Your task to perform on an android device: Open the phone app and click the voicemail tab. Image 0: 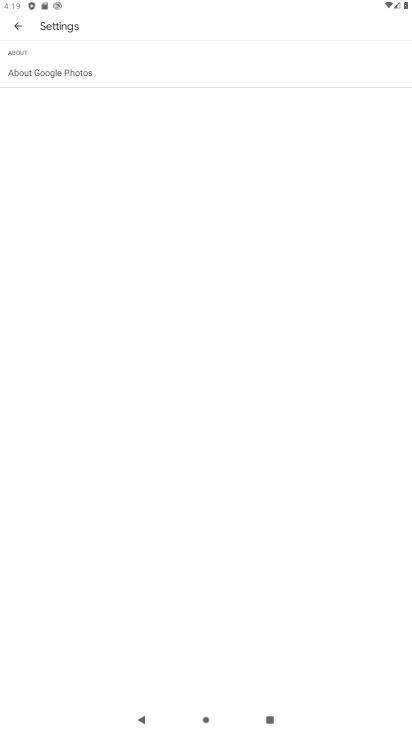
Step 0: press home button
Your task to perform on an android device: Open the phone app and click the voicemail tab. Image 1: 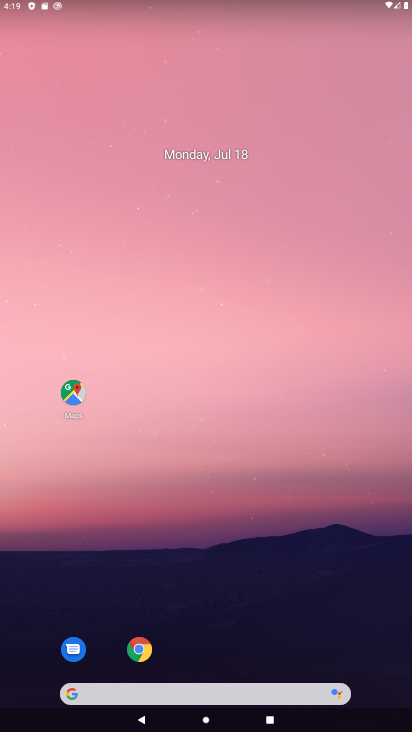
Step 1: drag from (191, 590) to (153, 38)
Your task to perform on an android device: Open the phone app and click the voicemail tab. Image 2: 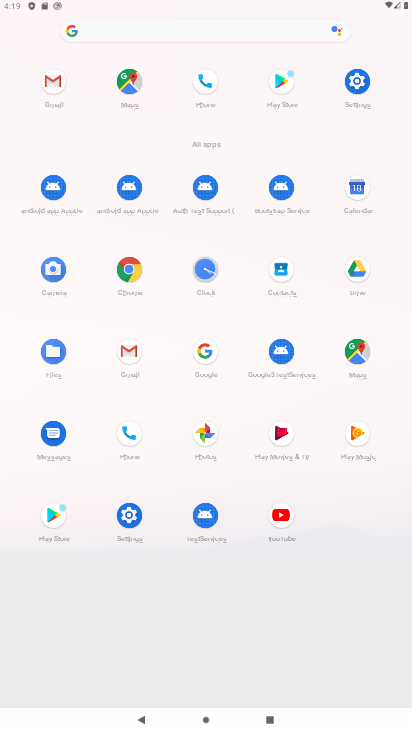
Step 2: click (124, 446)
Your task to perform on an android device: Open the phone app and click the voicemail tab. Image 3: 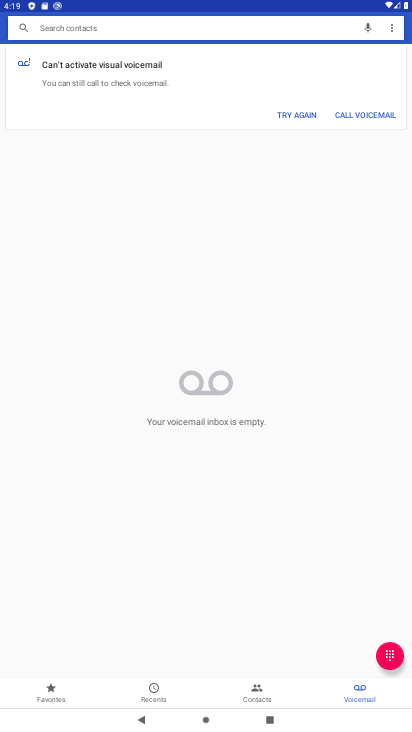
Step 3: task complete